Your task to perform on an android device: Open internet settings Image 0: 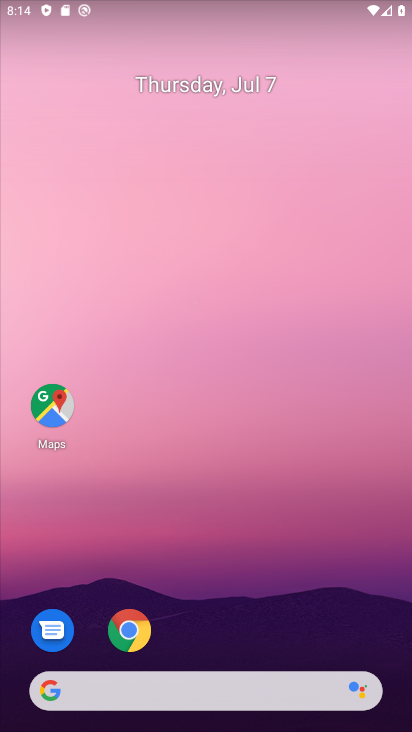
Step 0: drag from (265, 628) to (135, 33)
Your task to perform on an android device: Open internet settings Image 1: 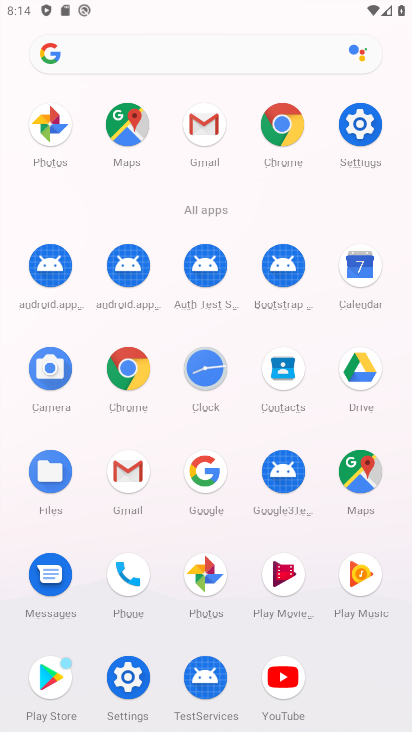
Step 1: click (358, 129)
Your task to perform on an android device: Open internet settings Image 2: 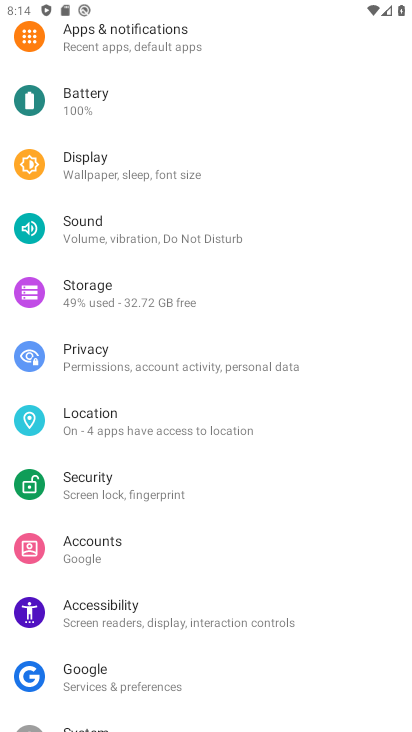
Step 2: drag from (228, 69) to (228, 222)
Your task to perform on an android device: Open internet settings Image 3: 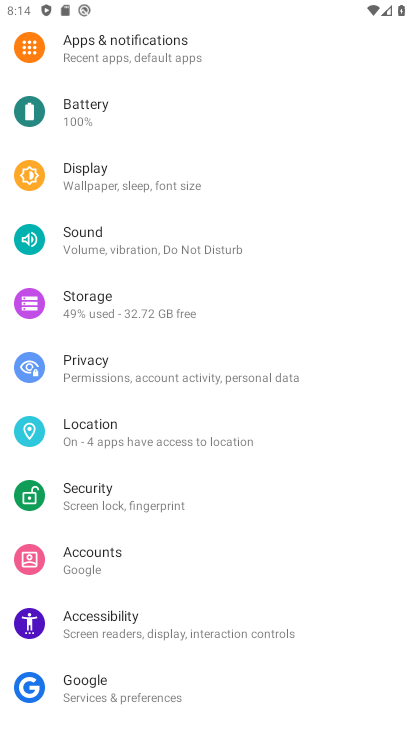
Step 3: drag from (261, 122) to (261, 404)
Your task to perform on an android device: Open internet settings Image 4: 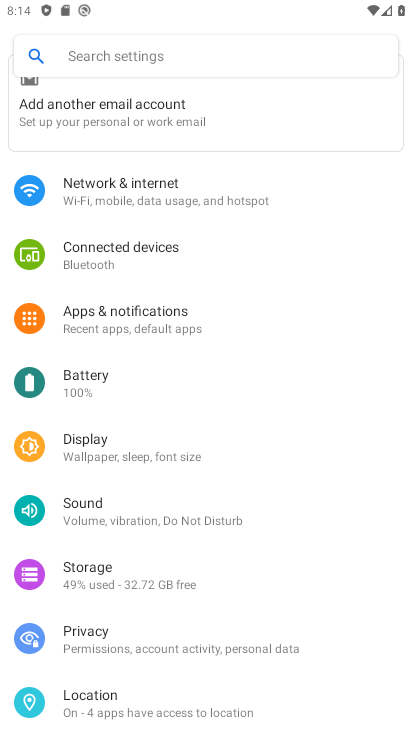
Step 4: click (338, 196)
Your task to perform on an android device: Open internet settings Image 5: 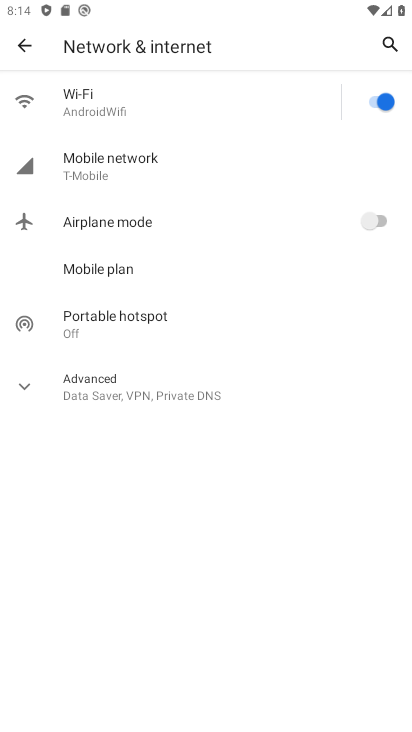
Step 5: click (142, 162)
Your task to perform on an android device: Open internet settings Image 6: 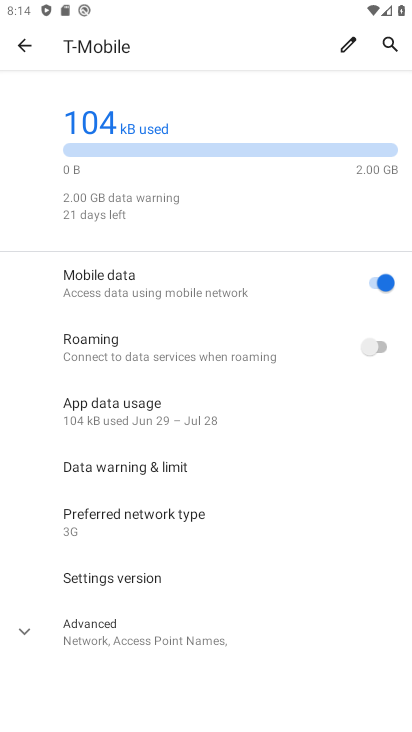
Step 6: task complete